Your task to perform on an android device: turn on javascript in the chrome app Image 0: 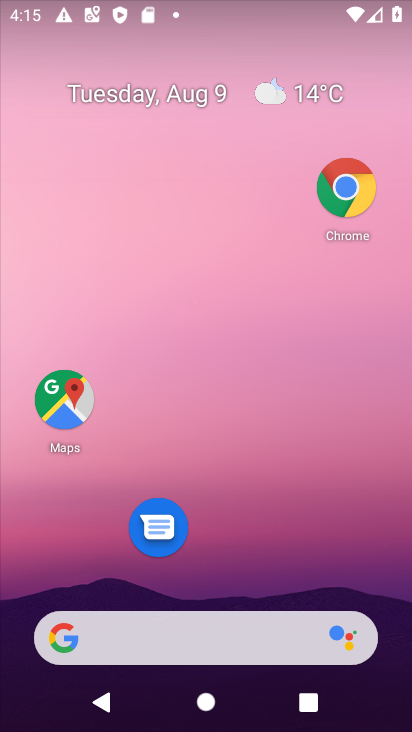
Step 0: click (359, 184)
Your task to perform on an android device: turn on javascript in the chrome app Image 1: 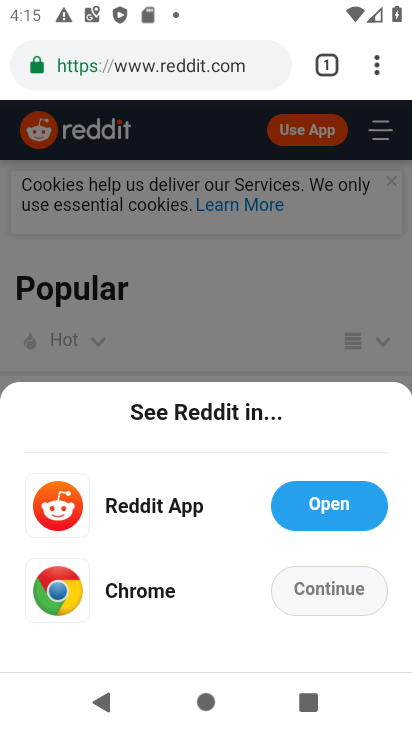
Step 1: click (389, 68)
Your task to perform on an android device: turn on javascript in the chrome app Image 2: 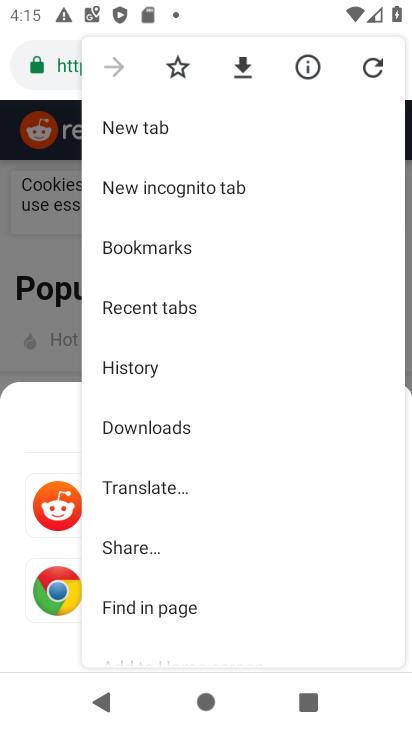
Step 2: drag from (186, 583) to (226, 35)
Your task to perform on an android device: turn on javascript in the chrome app Image 3: 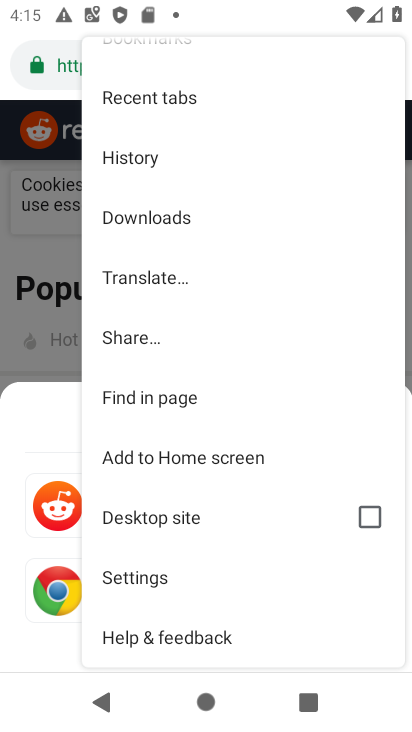
Step 3: click (179, 580)
Your task to perform on an android device: turn on javascript in the chrome app Image 4: 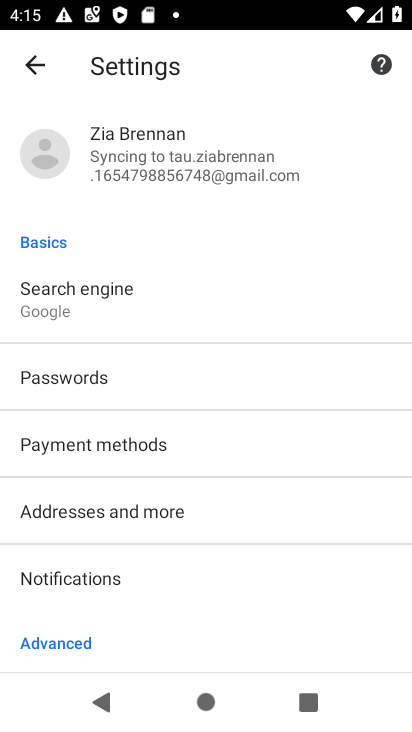
Step 4: click (179, 580)
Your task to perform on an android device: turn on javascript in the chrome app Image 5: 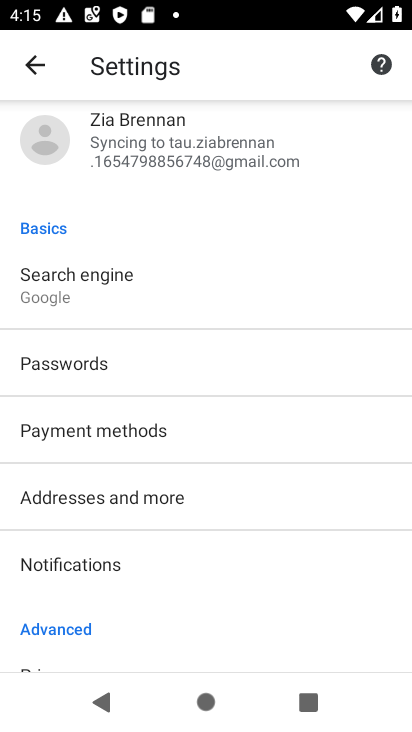
Step 5: drag from (215, 619) to (99, 262)
Your task to perform on an android device: turn on javascript in the chrome app Image 6: 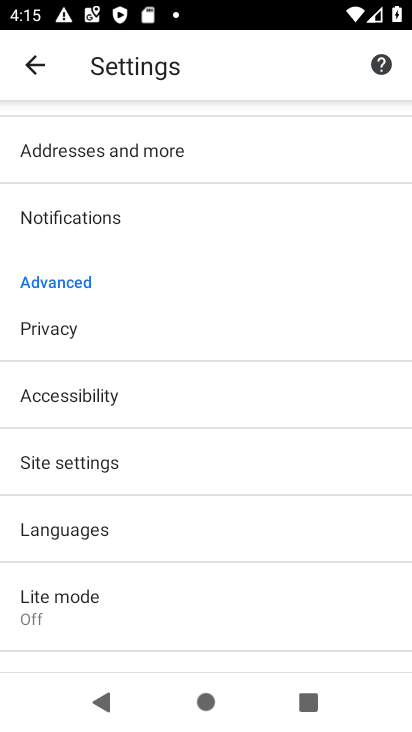
Step 6: click (117, 384)
Your task to perform on an android device: turn on javascript in the chrome app Image 7: 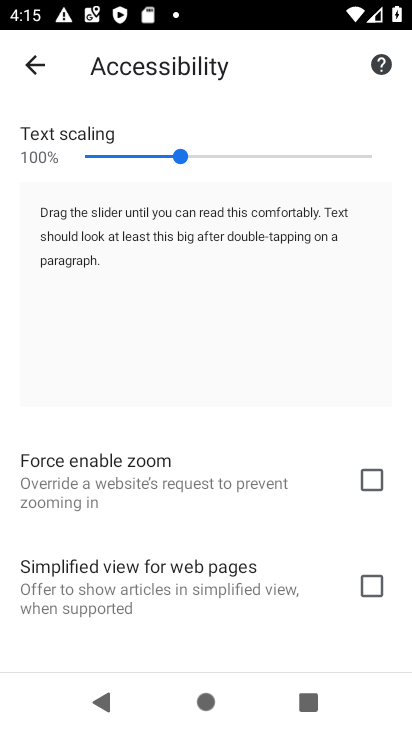
Step 7: click (20, 64)
Your task to perform on an android device: turn on javascript in the chrome app Image 8: 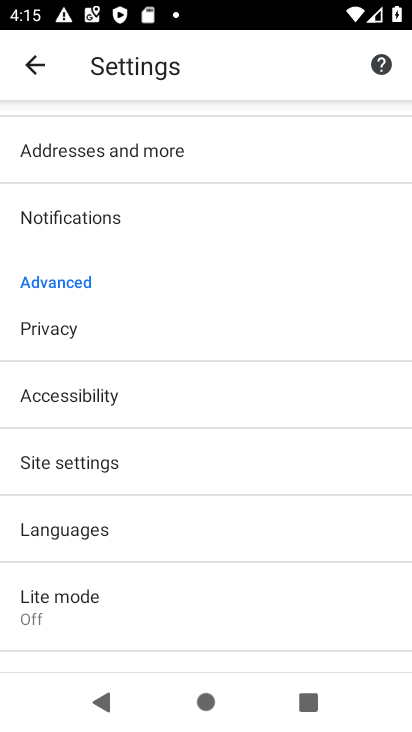
Step 8: press home button
Your task to perform on an android device: turn on javascript in the chrome app Image 9: 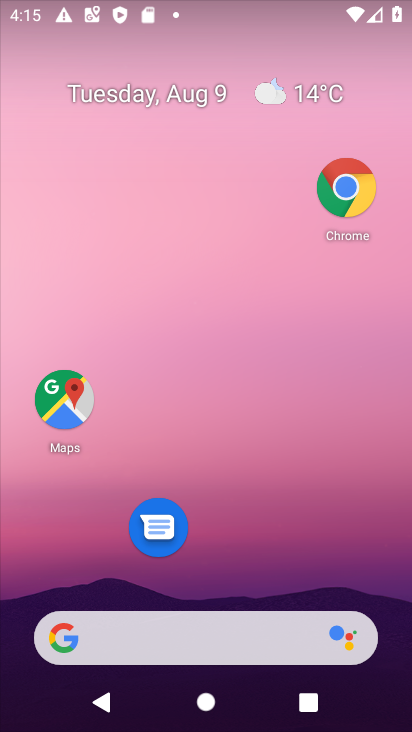
Step 9: click (338, 185)
Your task to perform on an android device: turn on javascript in the chrome app Image 10: 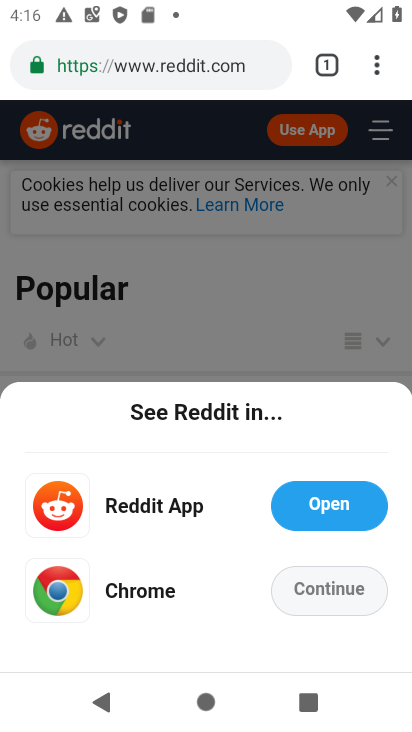
Step 10: click (376, 600)
Your task to perform on an android device: turn on javascript in the chrome app Image 11: 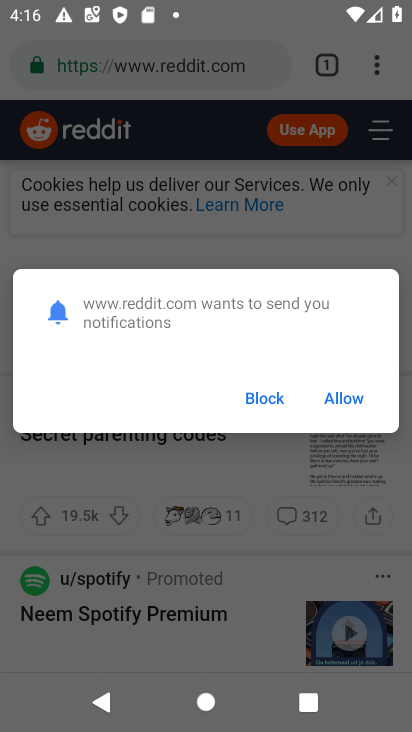
Step 11: click (245, 407)
Your task to perform on an android device: turn on javascript in the chrome app Image 12: 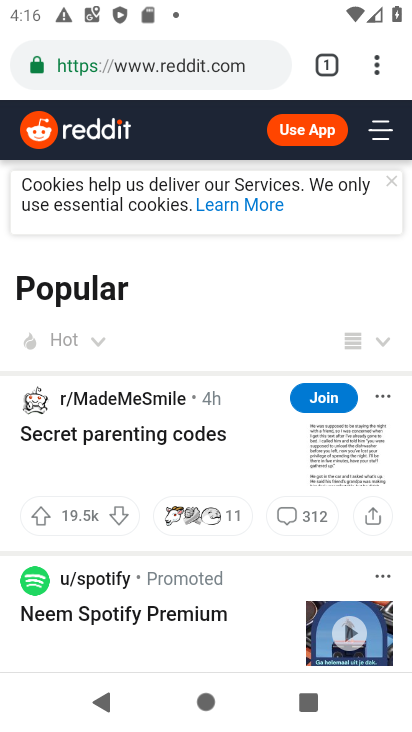
Step 12: click (400, 61)
Your task to perform on an android device: turn on javascript in the chrome app Image 13: 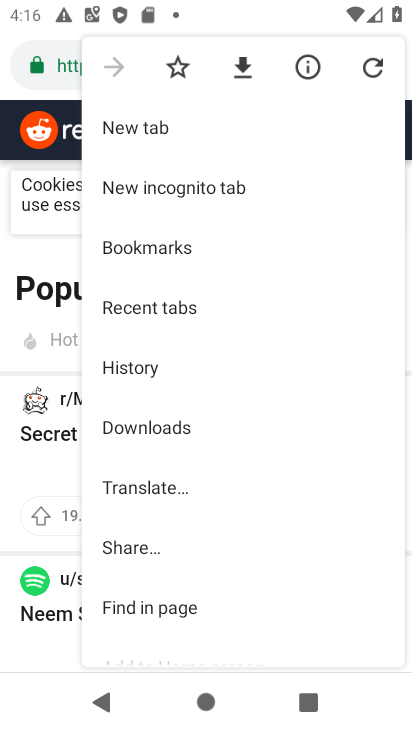
Step 13: drag from (172, 545) to (222, 98)
Your task to perform on an android device: turn on javascript in the chrome app Image 14: 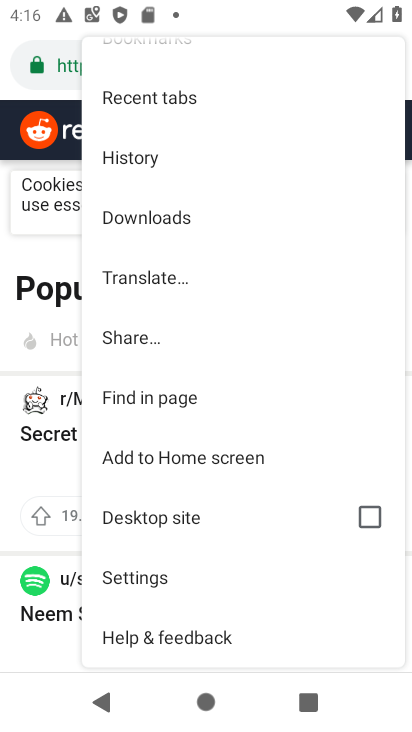
Step 14: click (134, 561)
Your task to perform on an android device: turn on javascript in the chrome app Image 15: 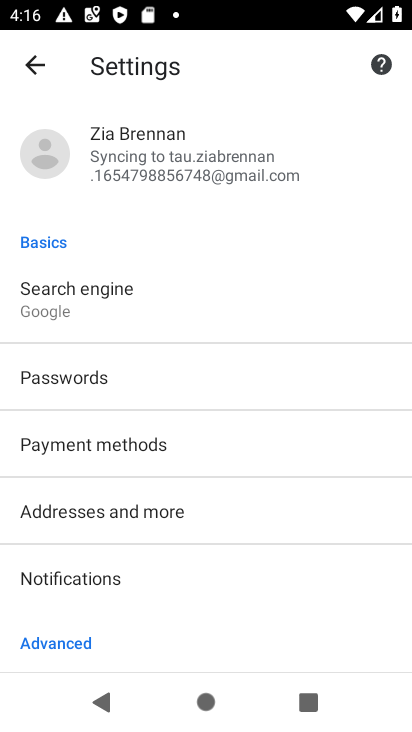
Step 15: drag from (197, 641) to (219, 307)
Your task to perform on an android device: turn on javascript in the chrome app Image 16: 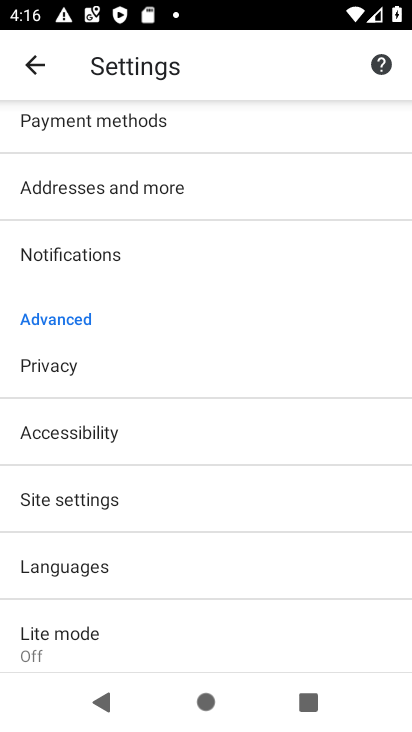
Step 16: drag from (174, 620) to (191, 291)
Your task to perform on an android device: turn on javascript in the chrome app Image 17: 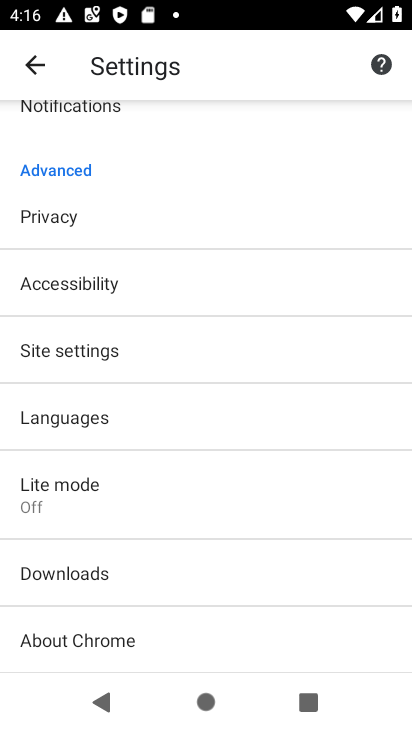
Step 17: click (161, 346)
Your task to perform on an android device: turn on javascript in the chrome app Image 18: 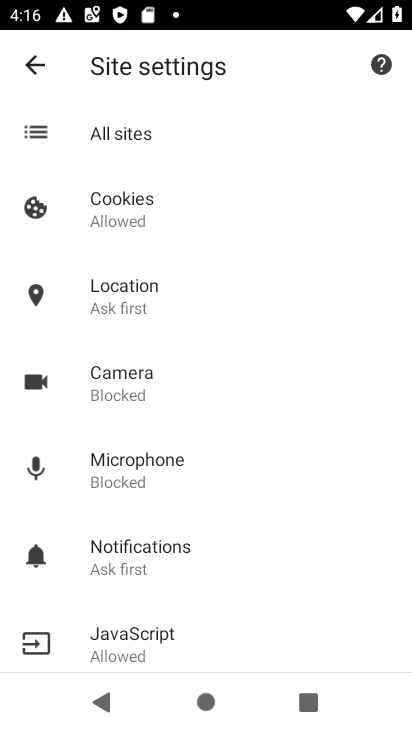
Step 18: click (164, 626)
Your task to perform on an android device: turn on javascript in the chrome app Image 19: 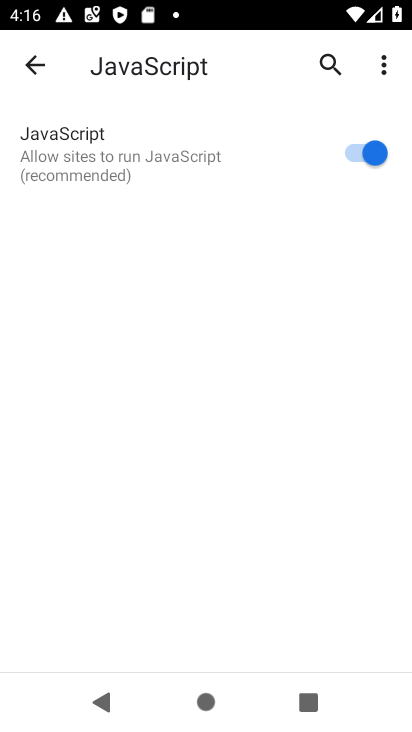
Step 19: task complete